Your task to perform on an android device: Go to Google Image 0: 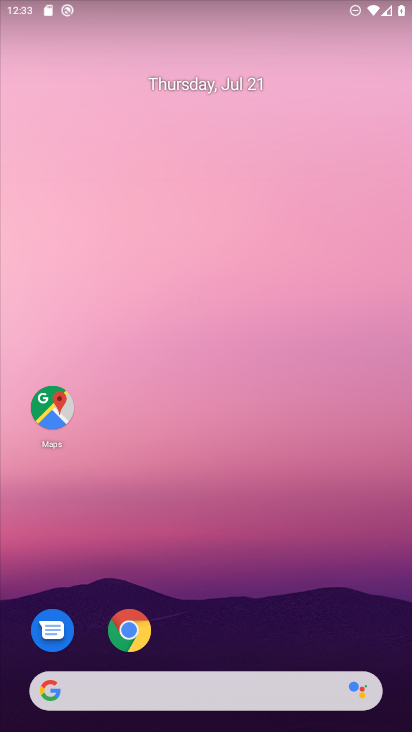
Step 0: drag from (386, 603) to (367, 176)
Your task to perform on an android device: Go to Google Image 1: 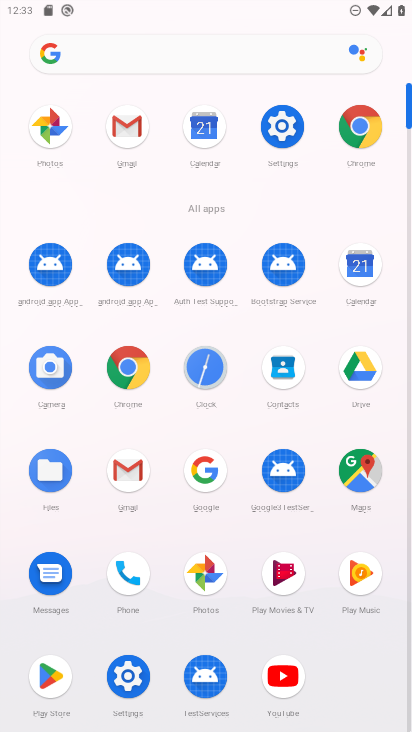
Step 1: click (209, 479)
Your task to perform on an android device: Go to Google Image 2: 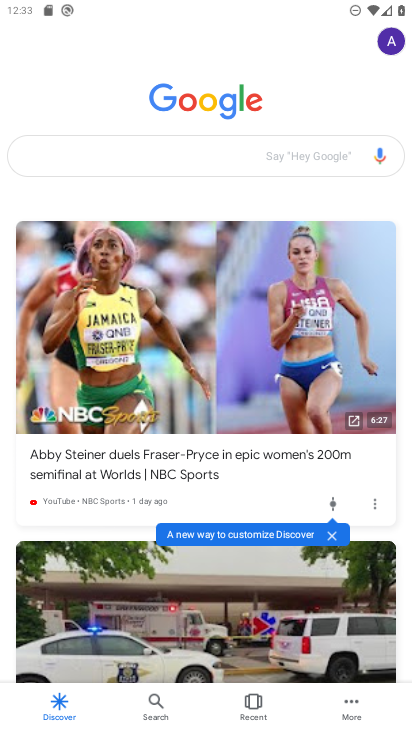
Step 2: task complete